Your task to perform on an android device: Open battery settings Image 0: 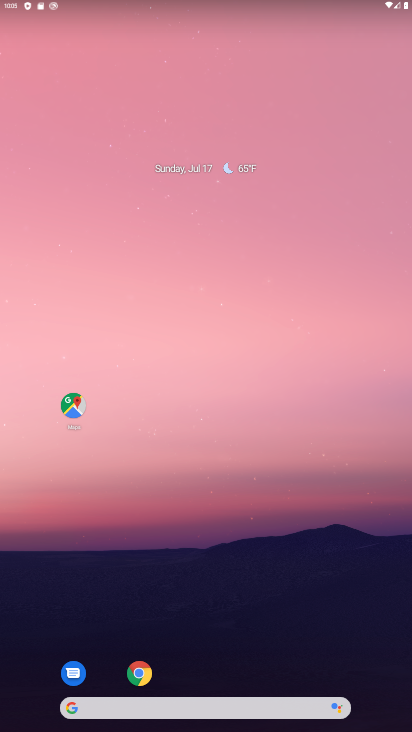
Step 0: drag from (205, 692) to (212, 205)
Your task to perform on an android device: Open battery settings Image 1: 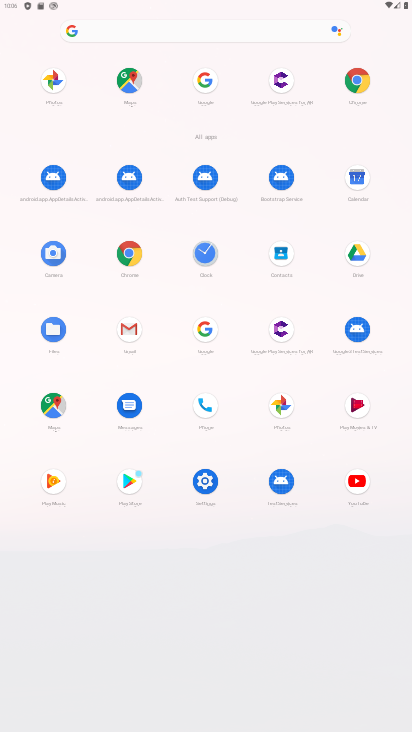
Step 1: click (193, 479)
Your task to perform on an android device: Open battery settings Image 2: 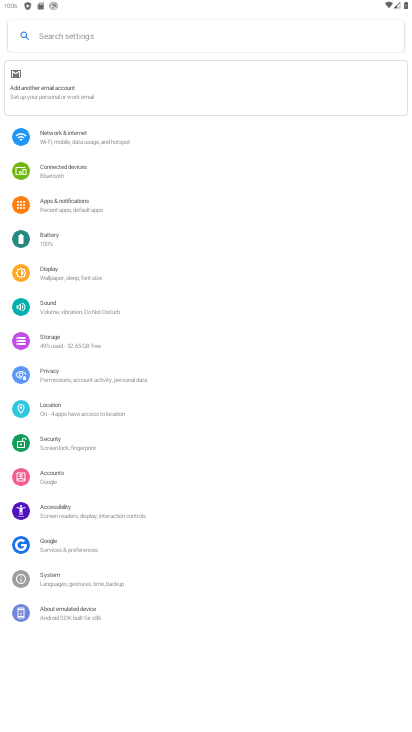
Step 2: click (74, 245)
Your task to perform on an android device: Open battery settings Image 3: 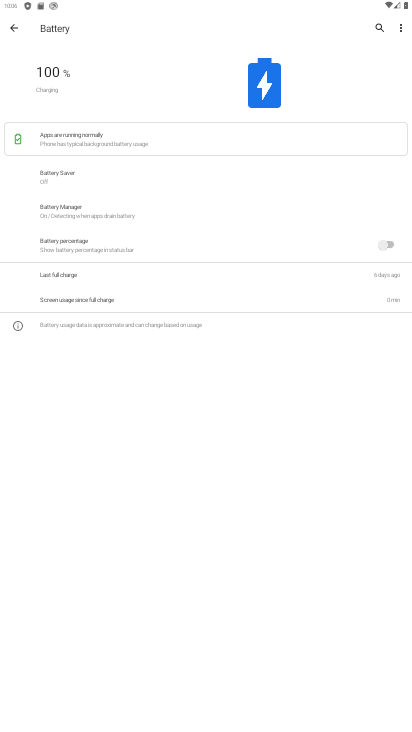
Step 3: task complete